Your task to perform on an android device: turn on sleep mode Image 0: 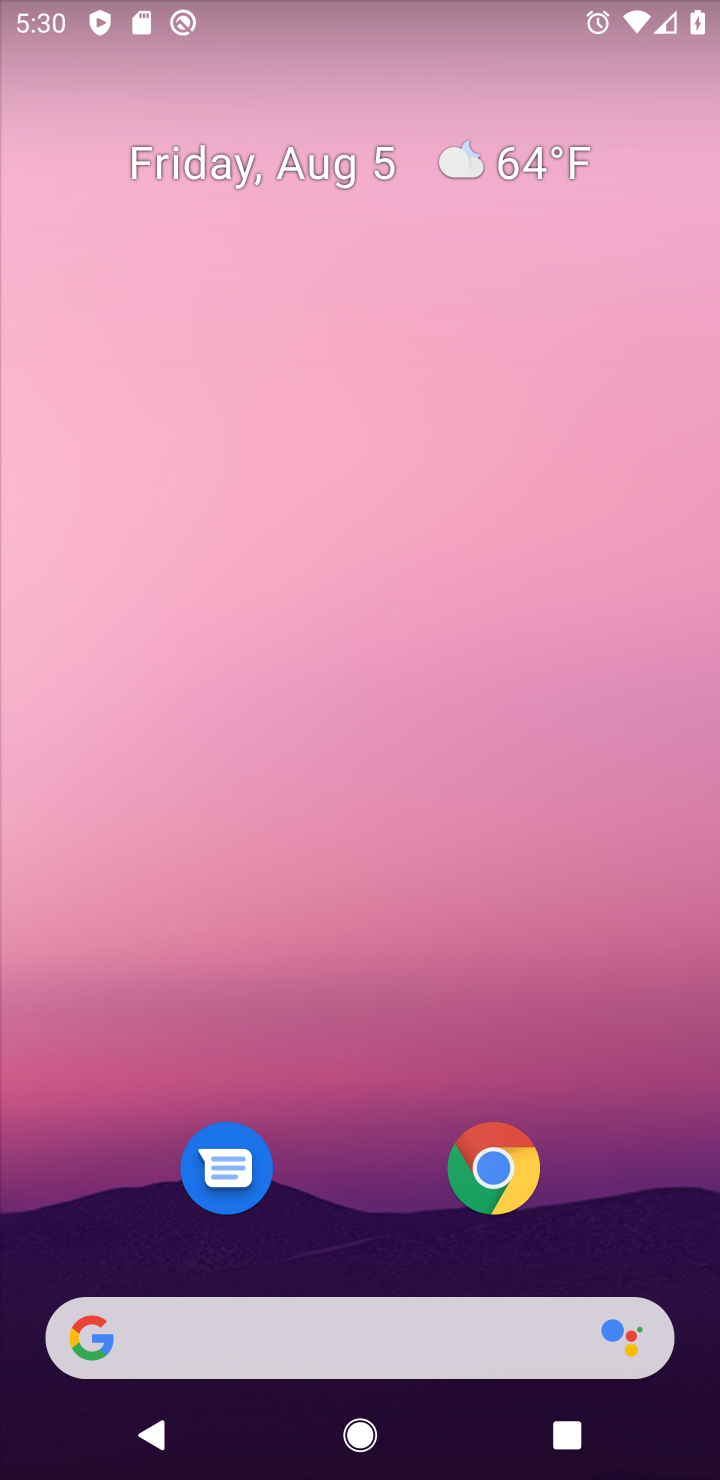
Step 0: press home button
Your task to perform on an android device: turn on sleep mode Image 1: 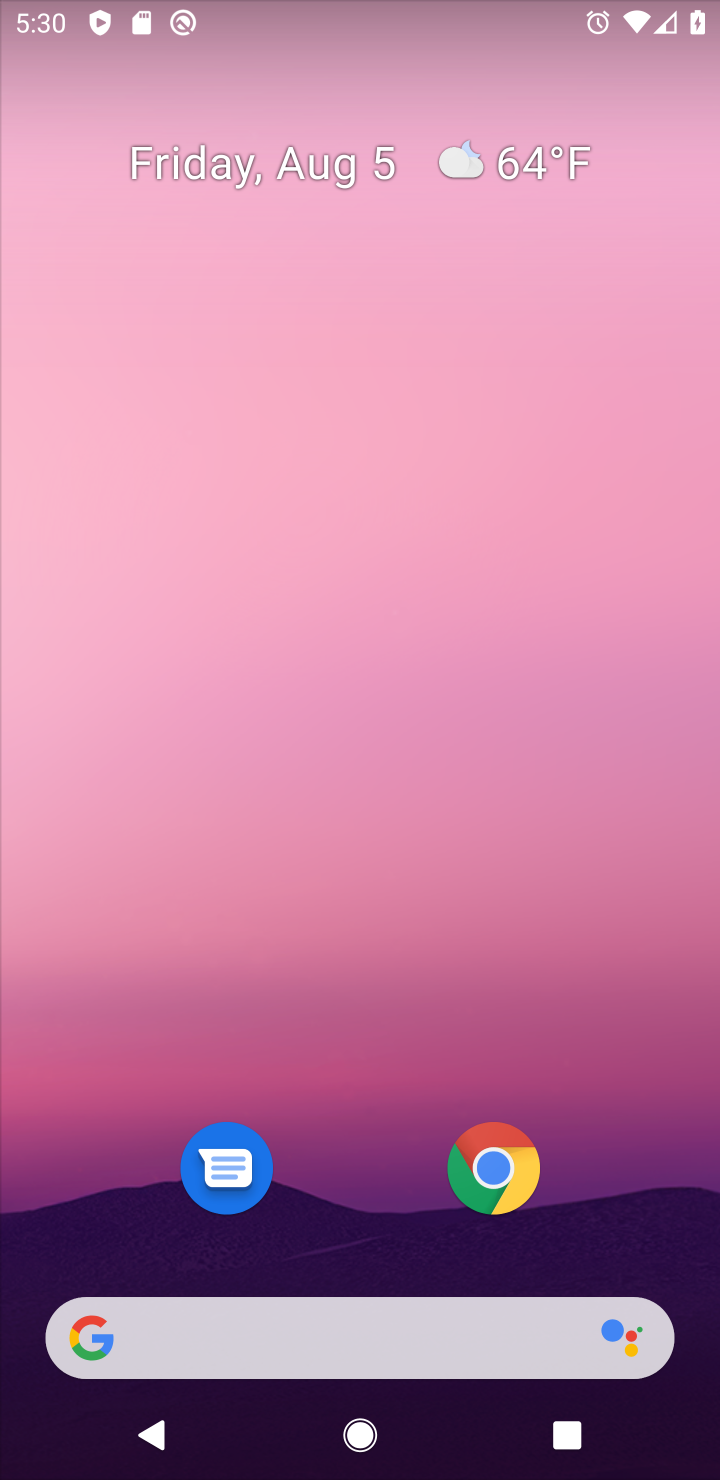
Step 1: drag from (372, 920) to (601, 7)
Your task to perform on an android device: turn on sleep mode Image 2: 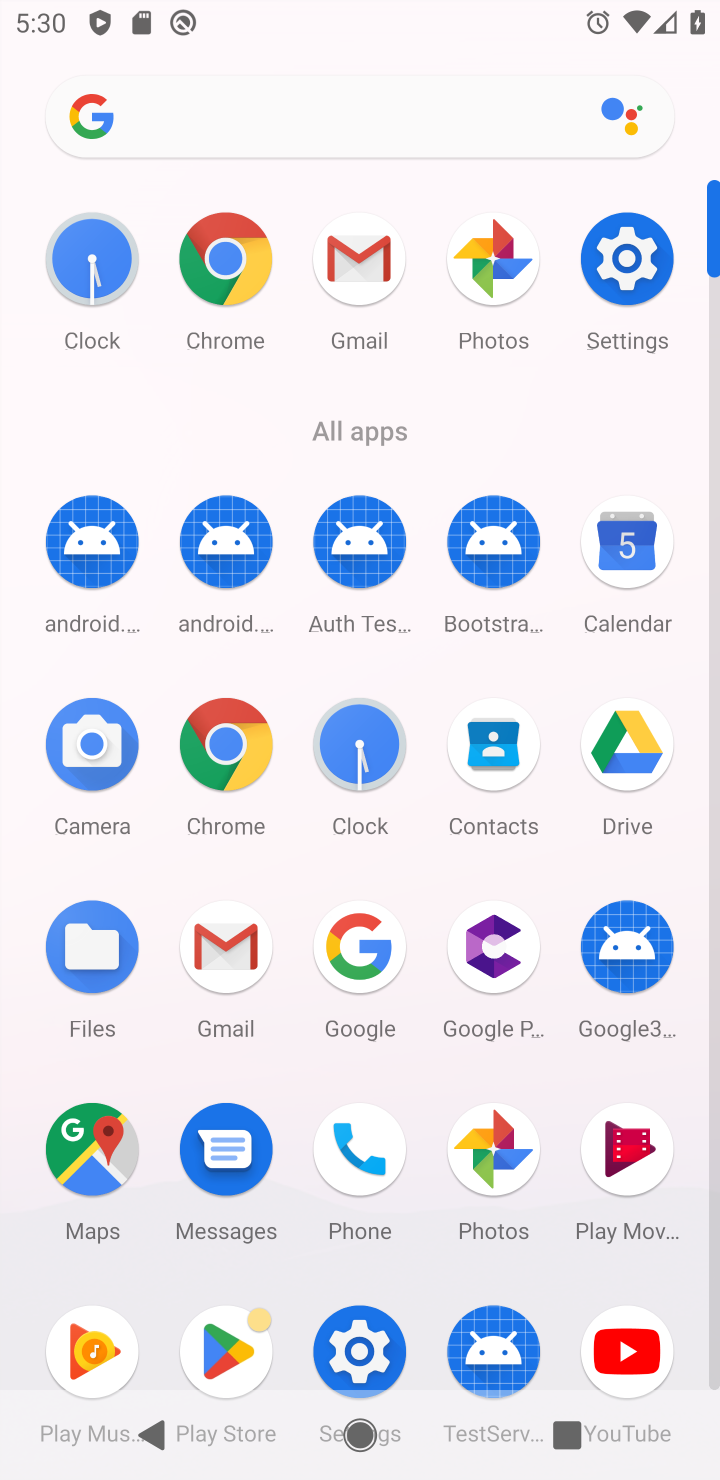
Step 2: click (628, 268)
Your task to perform on an android device: turn on sleep mode Image 3: 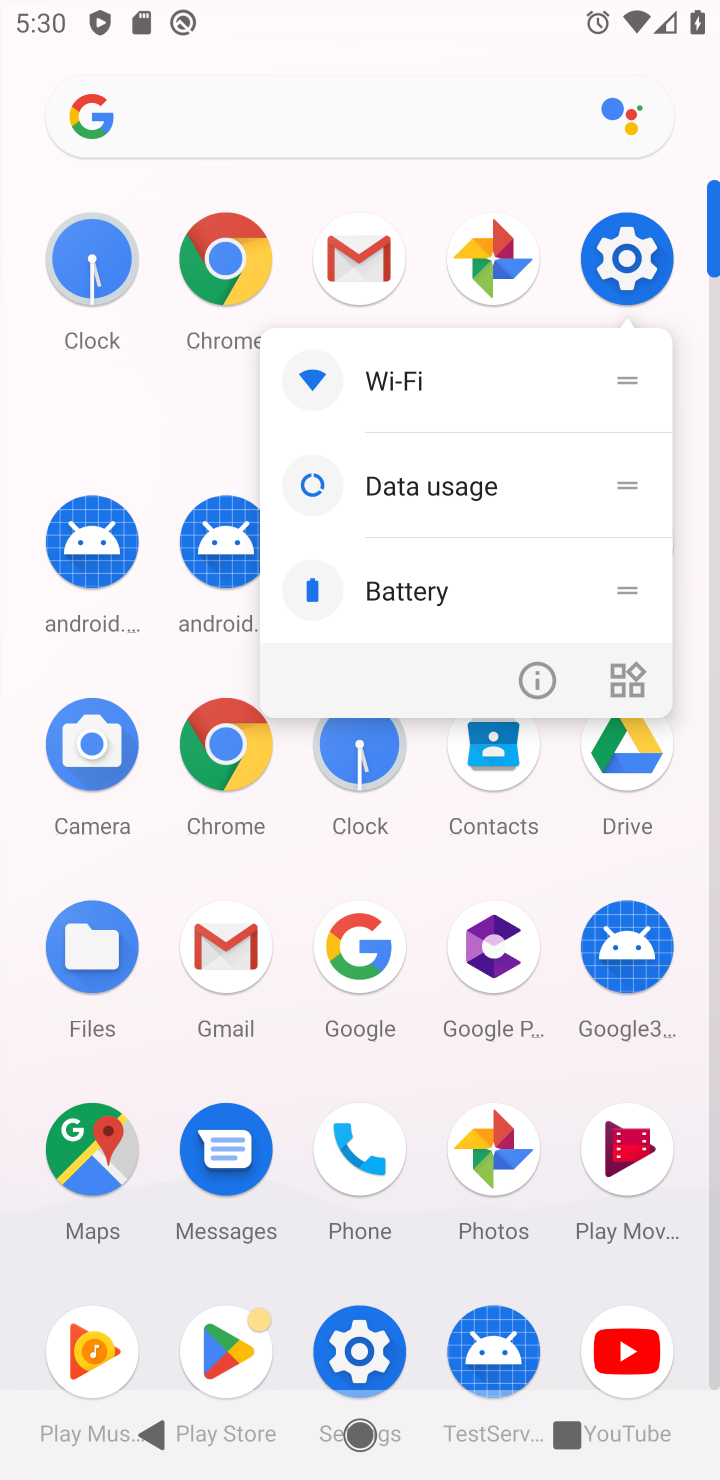
Step 3: click (631, 277)
Your task to perform on an android device: turn on sleep mode Image 4: 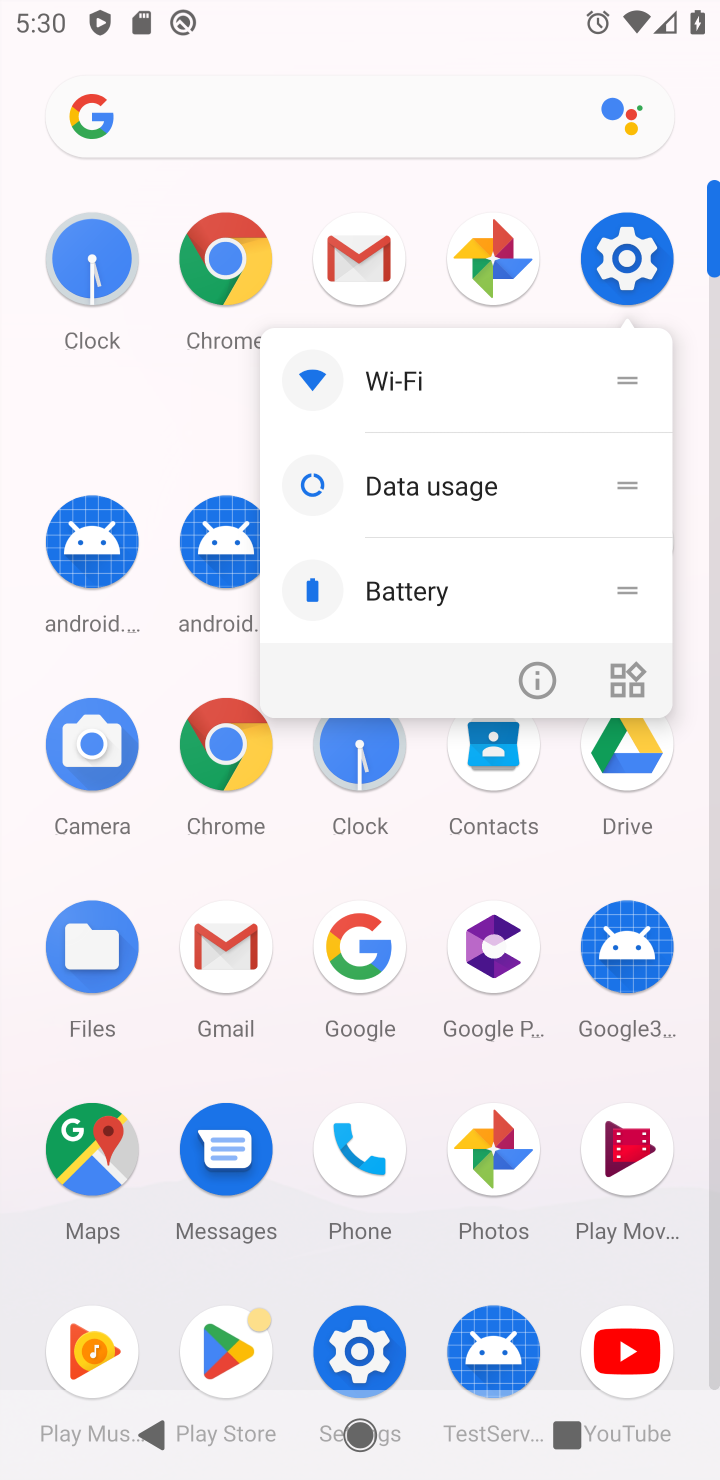
Step 4: click (631, 277)
Your task to perform on an android device: turn on sleep mode Image 5: 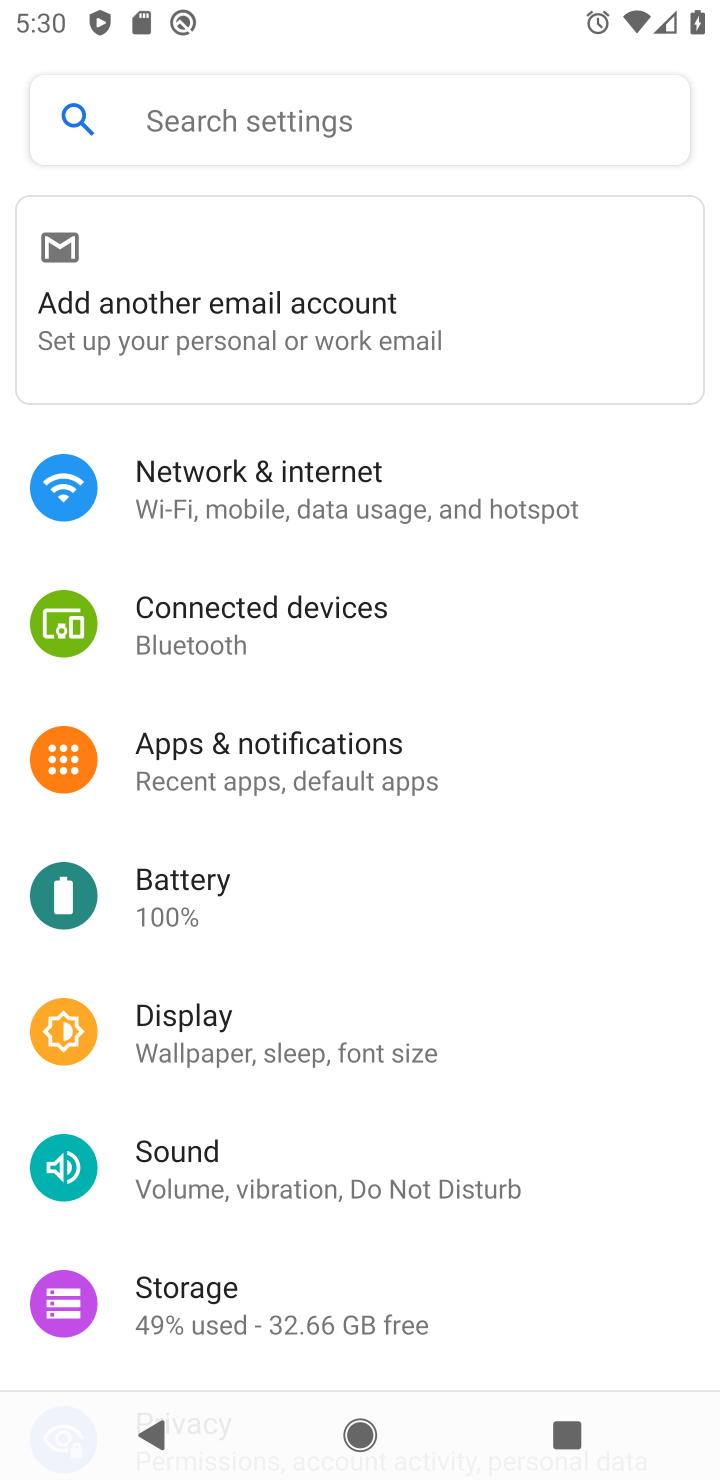
Step 5: click (187, 1043)
Your task to perform on an android device: turn on sleep mode Image 6: 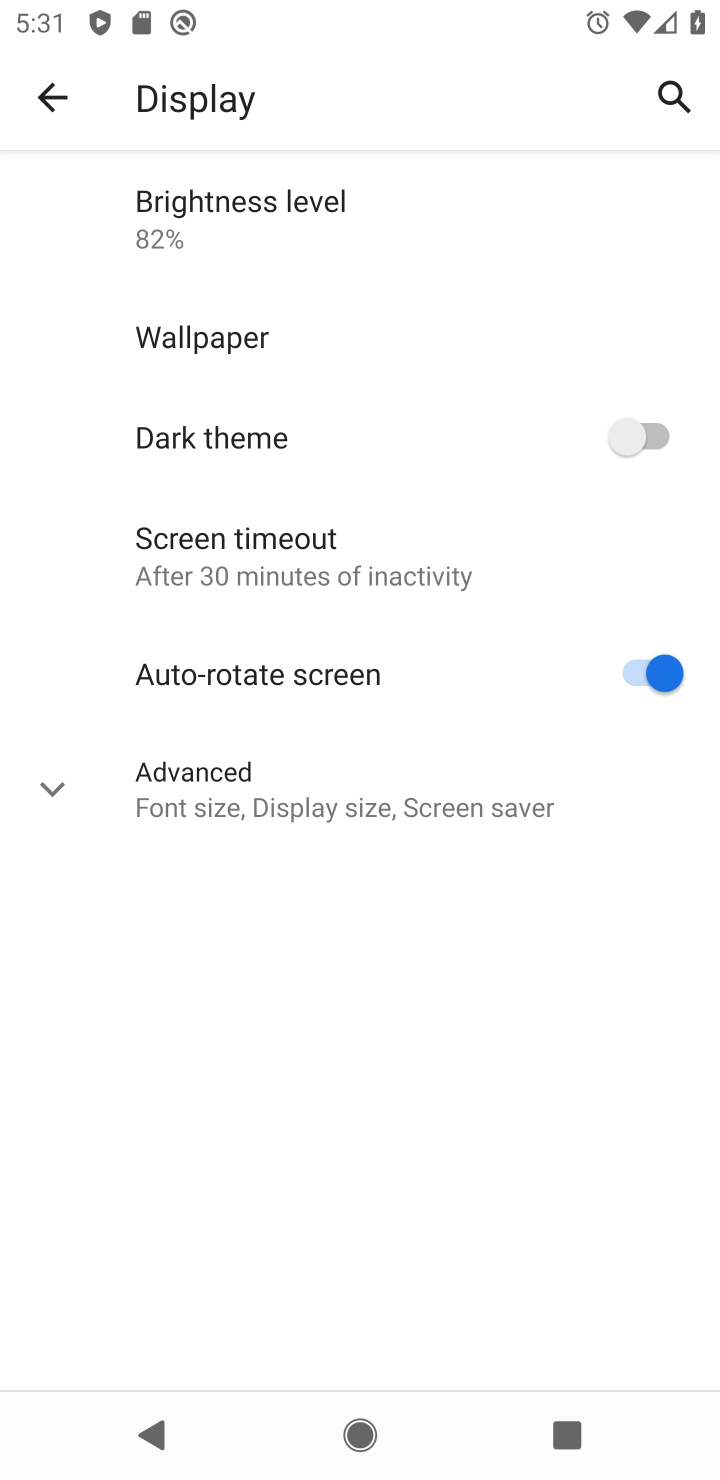
Step 6: task complete